Your task to perform on an android device: check storage Image 0: 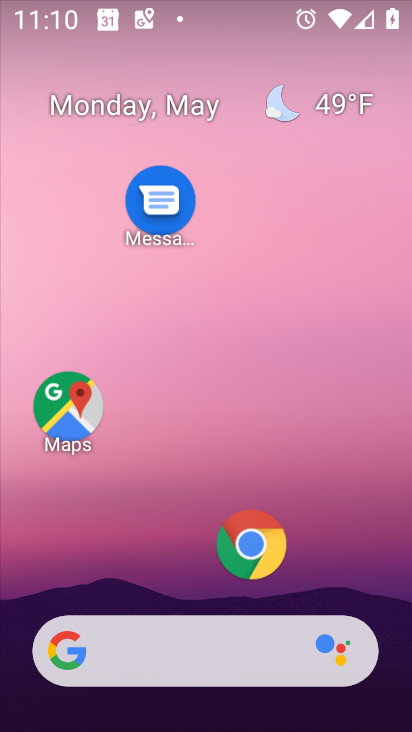
Step 0: drag from (350, 306) to (398, 69)
Your task to perform on an android device: check storage Image 1: 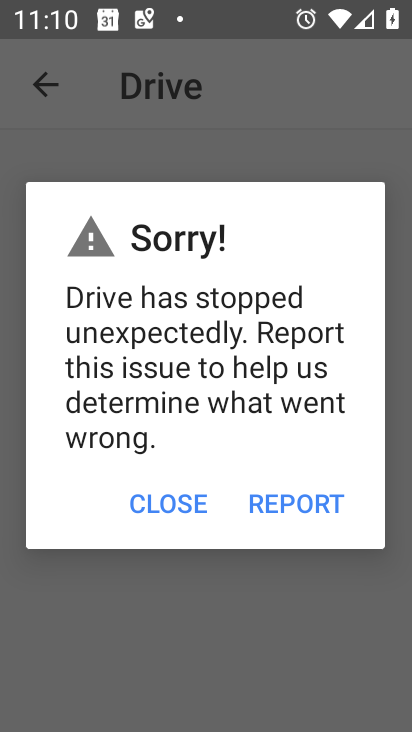
Step 1: press home button
Your task to perform on an android device: check storage Image 2: 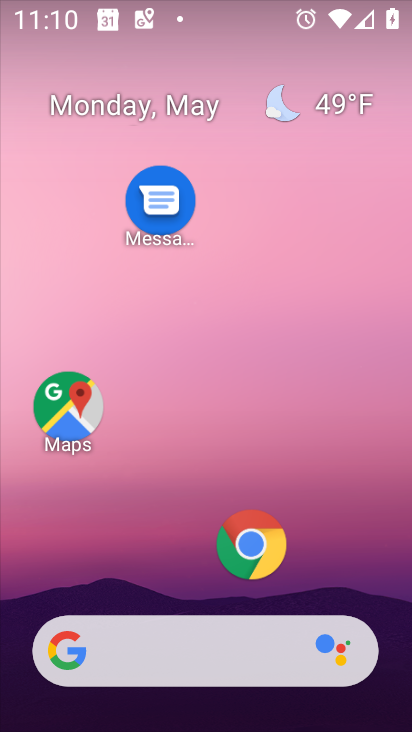
Step 2: drag from (187, 576) to (305, 28)
Your task to perform on an android device: check storage Image 3: 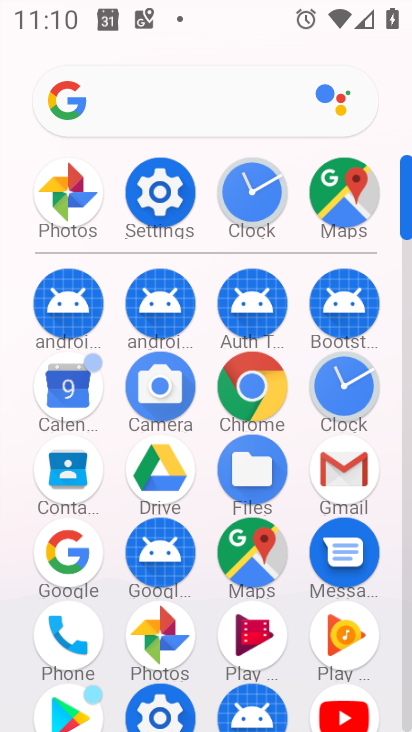
Step 3: click (173, 204)
Your task to perform on an android device: check storage Image 4: 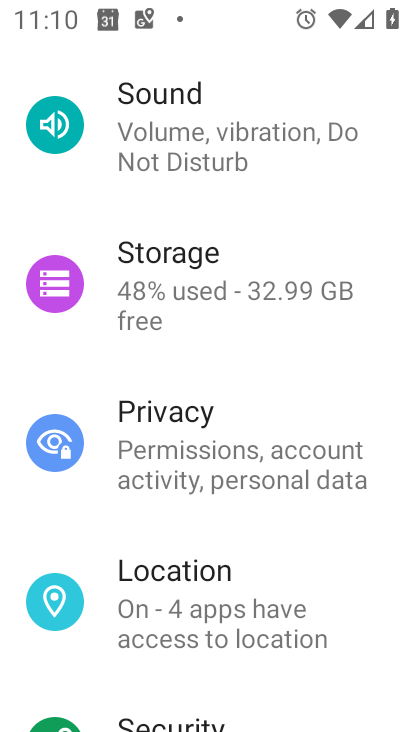
Step 4: click (201, 264)
Your task to perform on an android device: check storage Image 5: 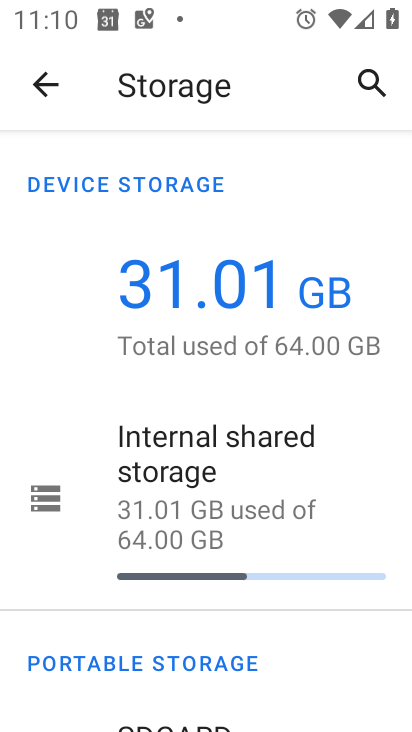
Step 5: task complete